Your task to perform on an android device: open app "Nova Launcher" (install if not already installed) and go to login screen Image 0: 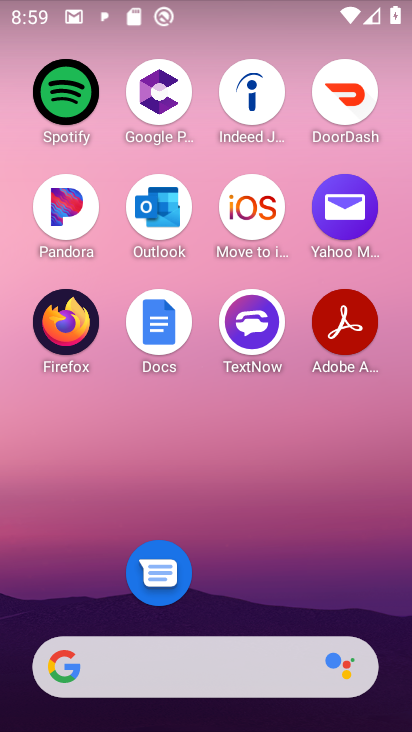
Step 0: drag from (221, 581) to (252, 71)
Your task to perform on an android device: open app "Nova Launcher" (install if not already installed) and go to login screen Image 1: 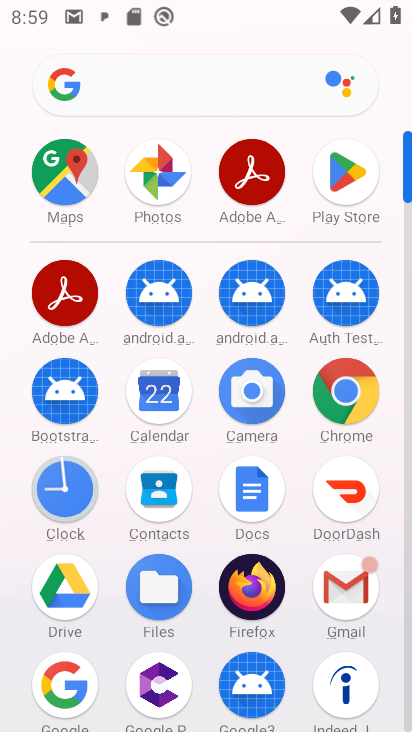
Step 1: click (350, 186)
Your task to perform on an android device: open app "Nova Launcher" (install if not already installed) and go to login screen Image 2: 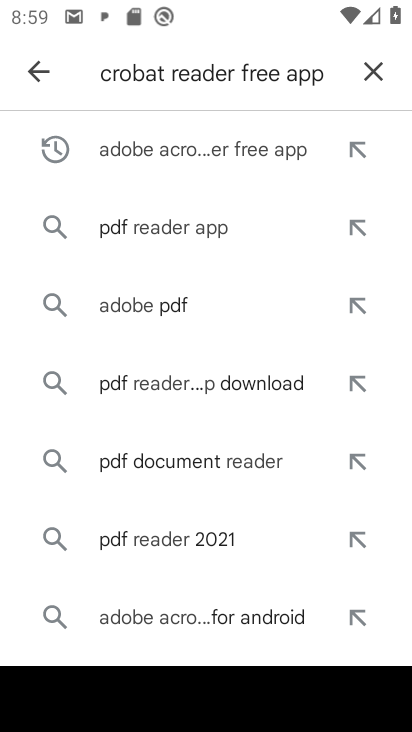
Step 2: click (357, 70)
Your task to perform on an android device: open app "Nova Launcher" (install if not already installed) and go to login screen Image 3: 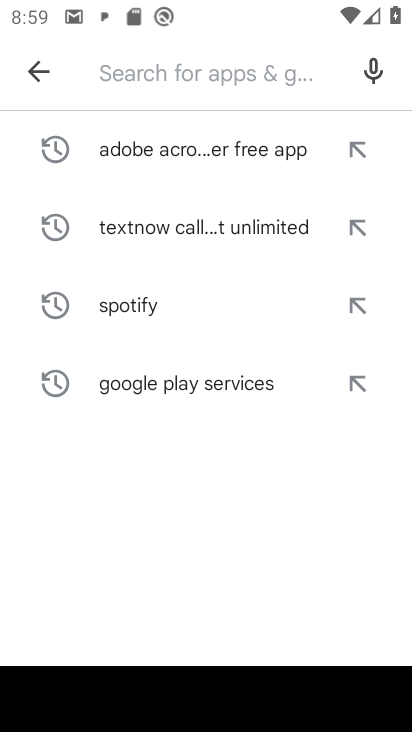
Step 3: type "Nova launcher"
Your task to perform on an android device: open app "Nova Launcher" (install if not already installed) and go to login screen Image 4: 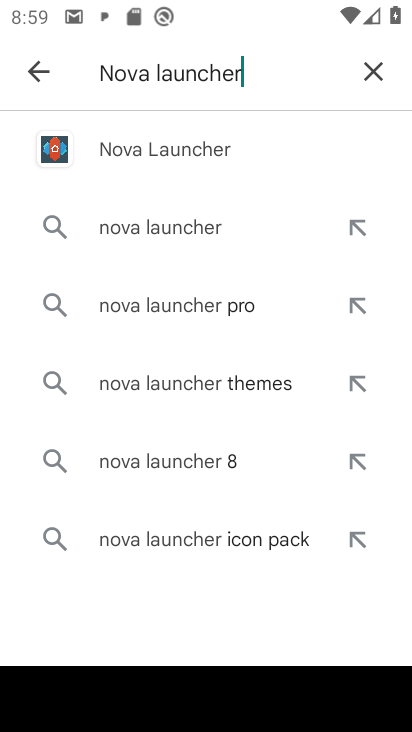
Step 4: click (192, 139)
Your task to perform on an android device: open app "Nova Launcher" (install if not already installed) and go to login screen Image 5: 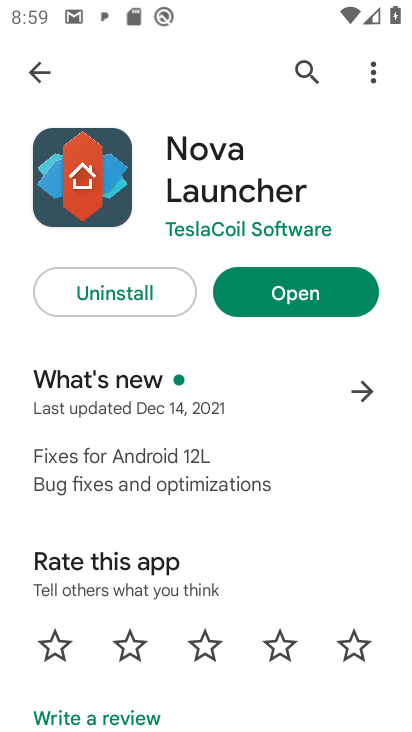
Step 5: click (282, 303)
Your task to perform on an android device: open app "Nova Launcher" (install if not already installed) and go to login screen Image 6: 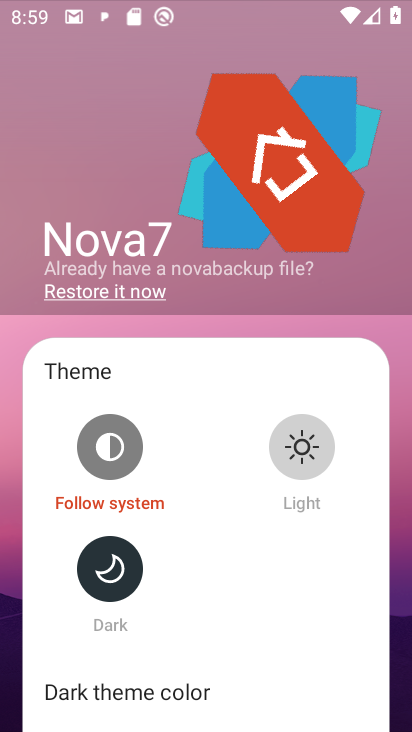
Step 6: task complete